Your task to perform on an android device: open app "Skype" (install if not already installed), go to login, and select forgot password Image 0: 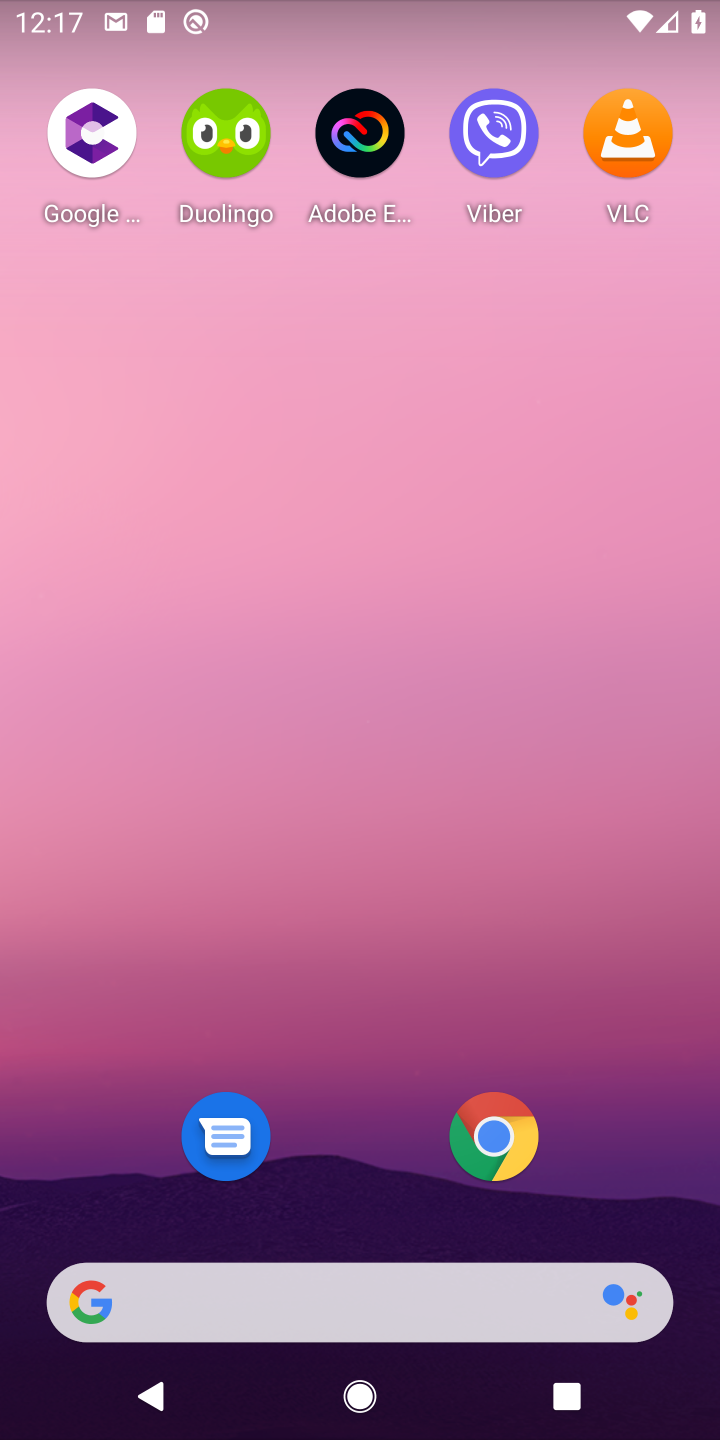
Step 0: press home button
Your task to perform on an android device: open app "Skype" (install if not already installed), go to login, and select forgot password Image 1: 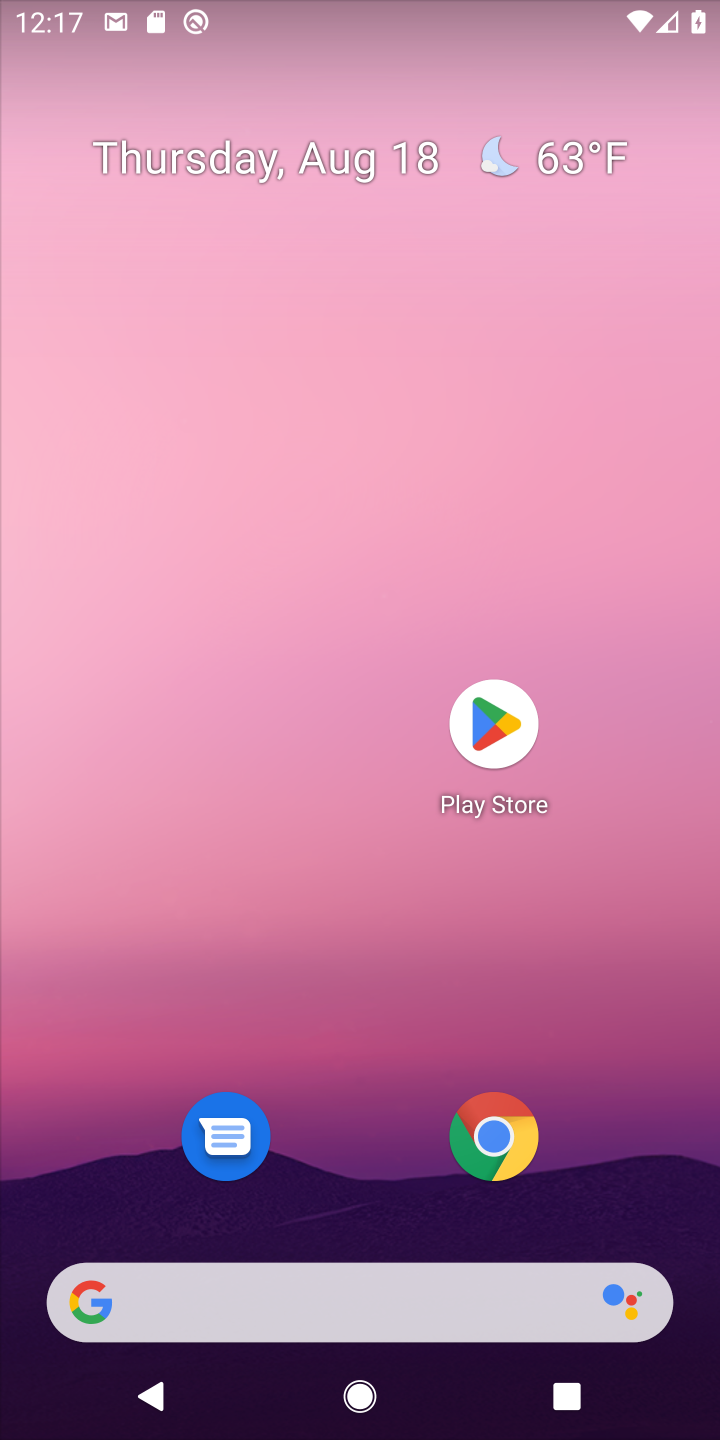
Step 1: click (482, 737)
Your task to perform on an android device: open app "Skype" (install if not already installed), go to login, and select forgot password Image 2: 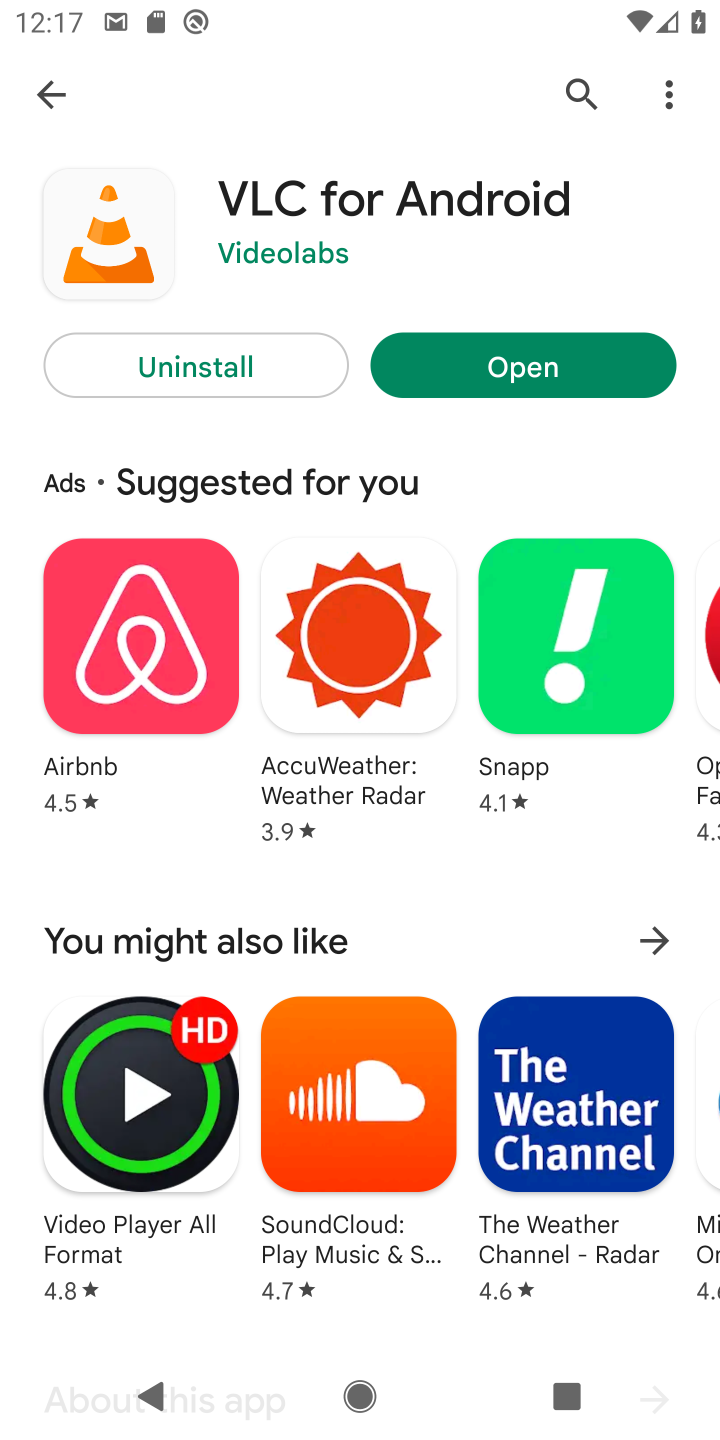
Step 2: click (573, 91)
Your task to perform on an android device: open app "Skype" (install if not already installed), go to login, and select forgot password Image 3: 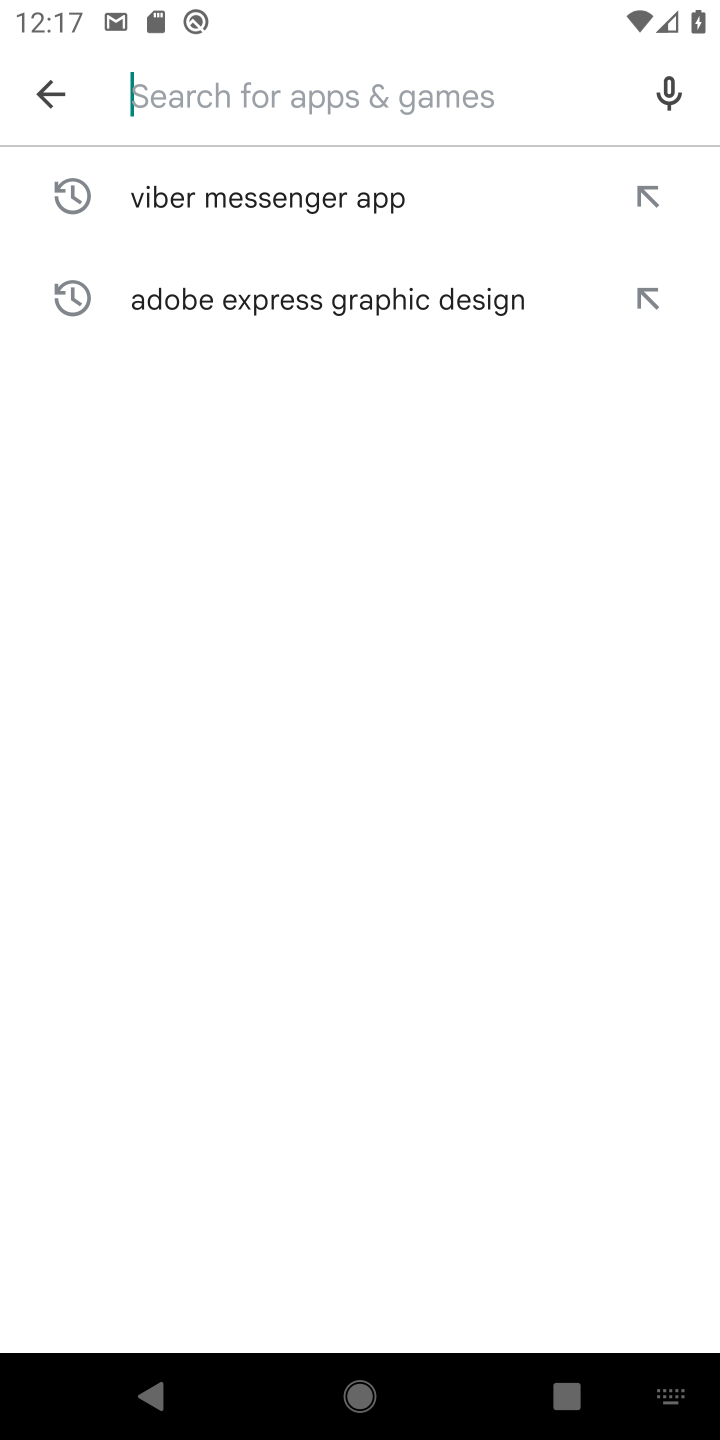
Step 3: type "Skype"
Your task to perform on an android device: open app "Skype" (install if not already installed), go to login, and select forgot password Image 4: 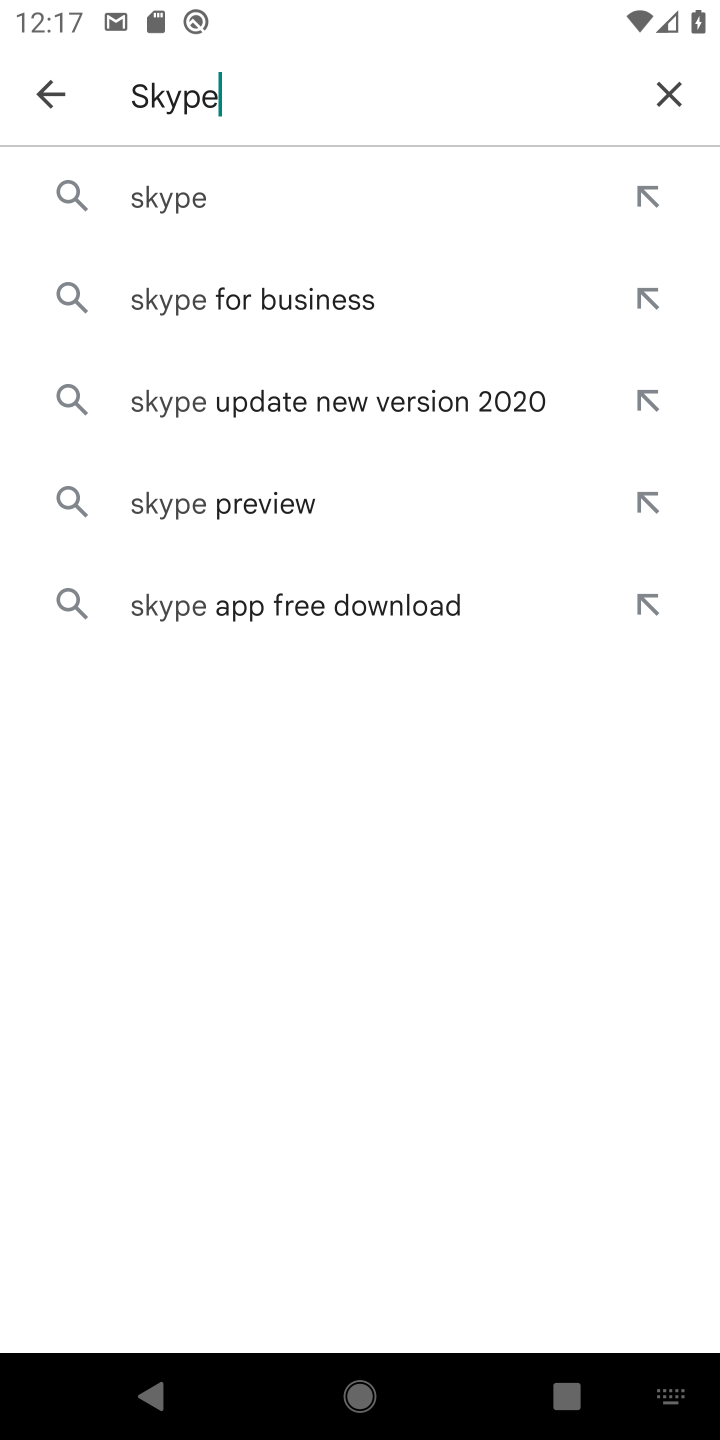
Step 4: click (172, 199)
Your task to perform on an android device: open app "Skype" (install if not already installed), go to login, and select forgot password Image 5: 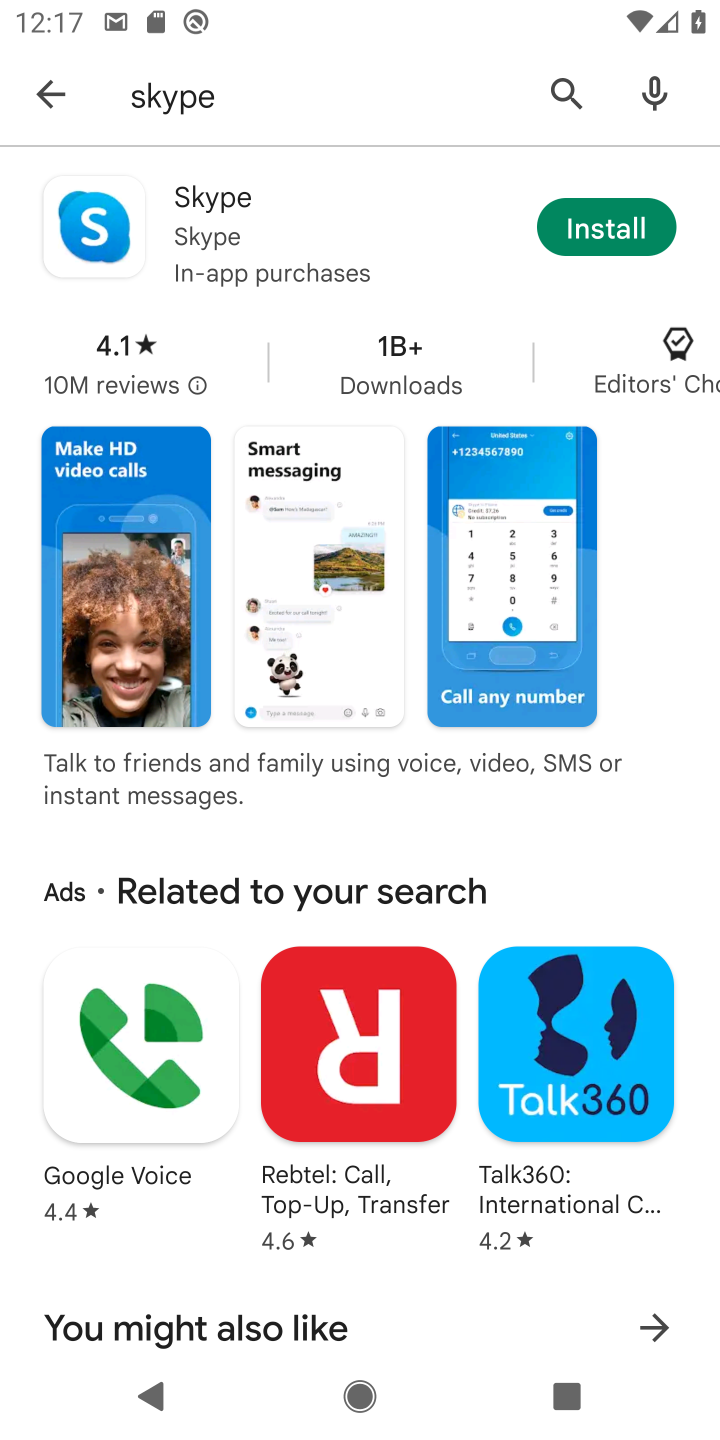
Step 5: click (618, 228)
Your task to perform on an android device: open app "Skype" (install if not already installed), go to login, and select forgot password Image 6: 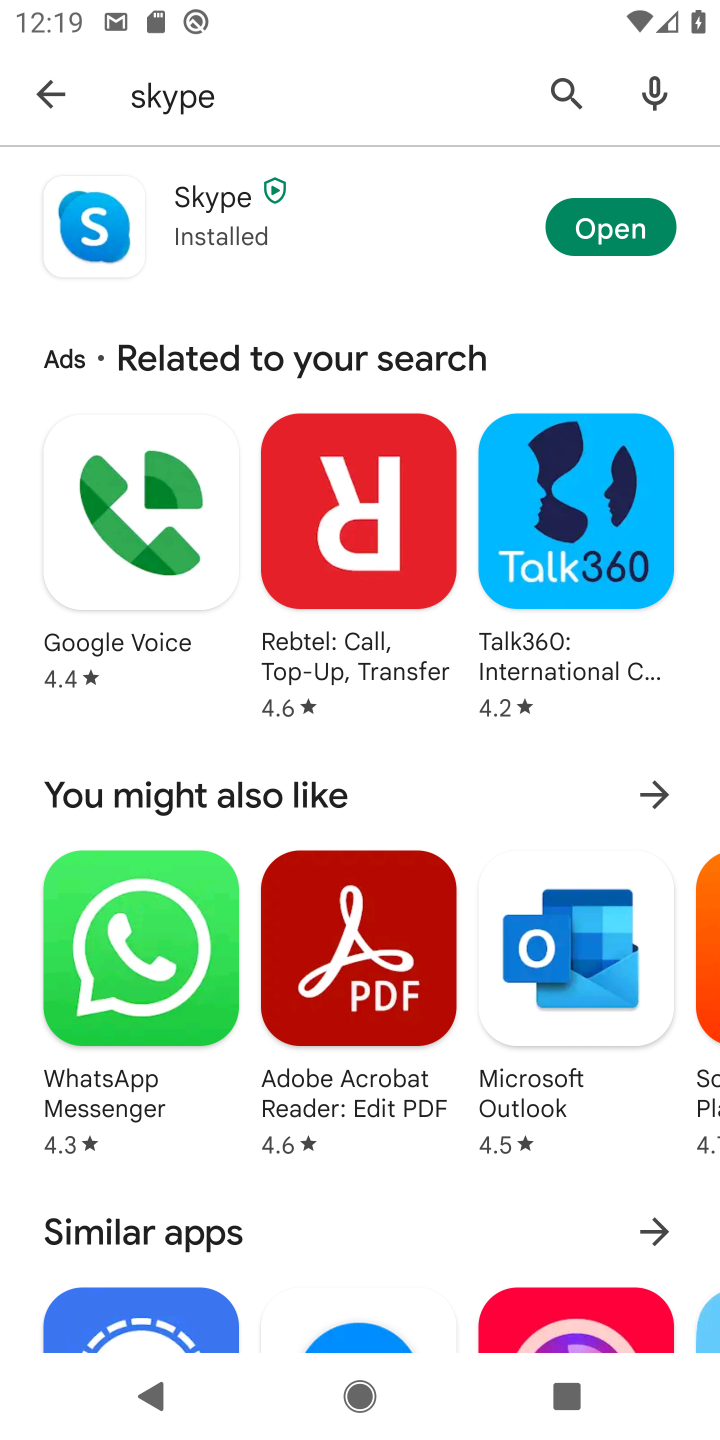
Step 6: click (604, 235)
Your task to perform on an android device: open app "Skype" (install if not already installed), go to login, and select forgot password Image 7: 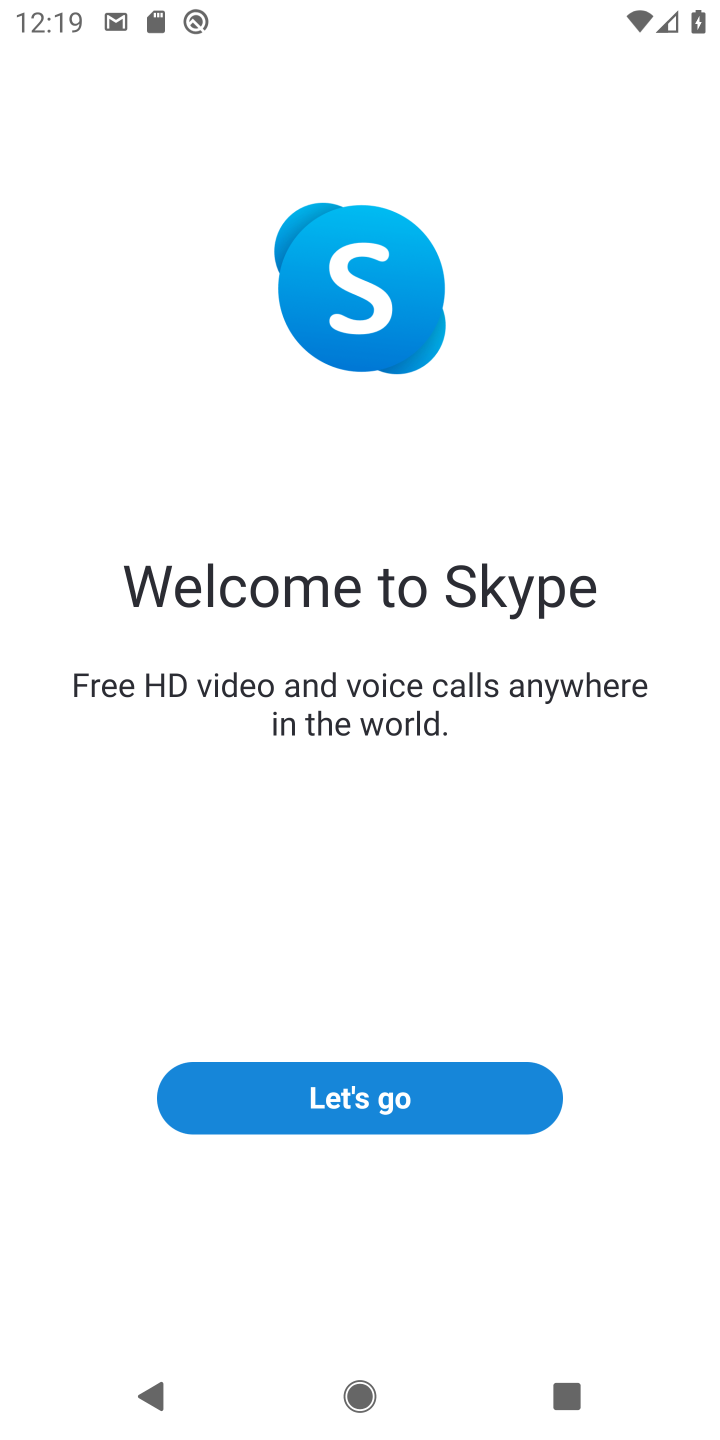
Step 7: click (366, 1096)
Your task to perform on an android device: open app "Skype" (install if not already installed), go to login, and select forgot password Image 8: 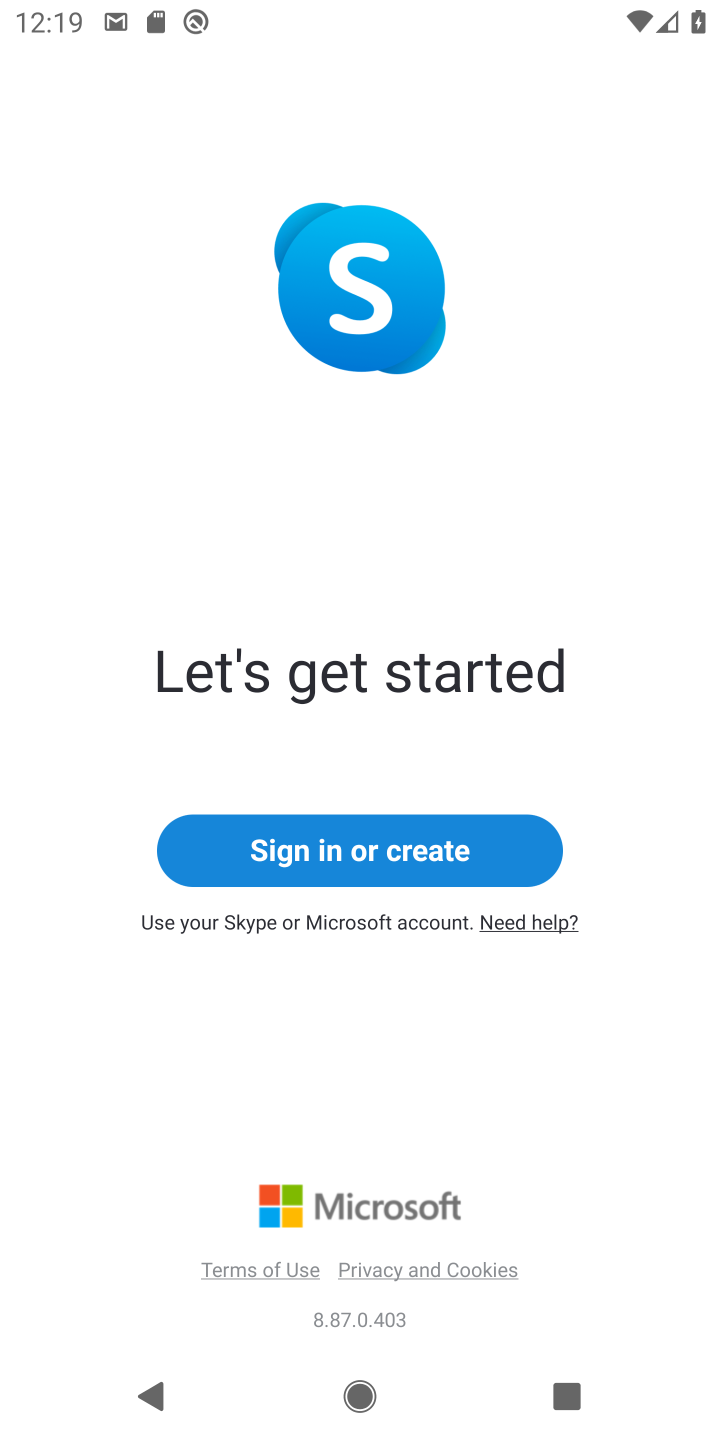
Step 8: click (310, 857)
Your task to perform on an android device: open app "Skype" (install if not already installed), go to login, and select forgot password Image 9: 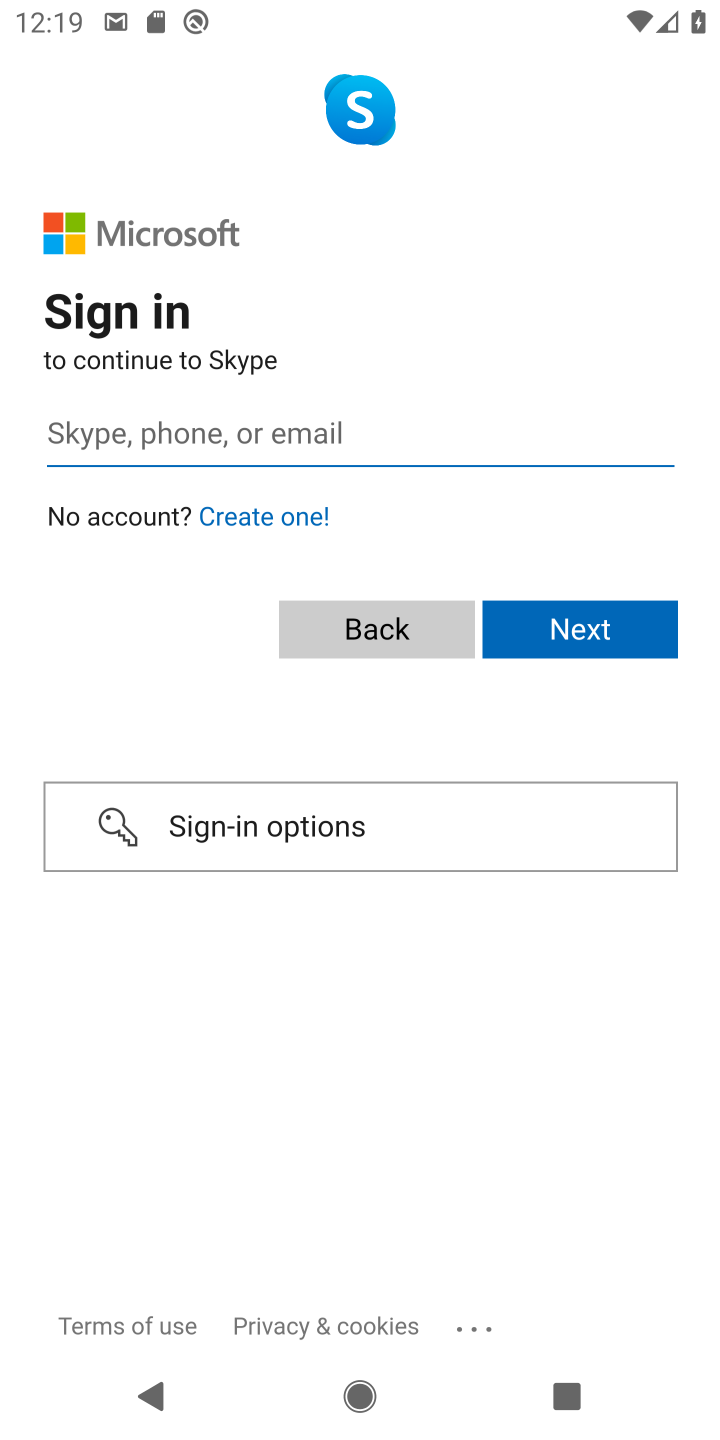
Step 9: task complete